Your task to perform on an android device: Open calendar and show me the second week of next month Image 0: 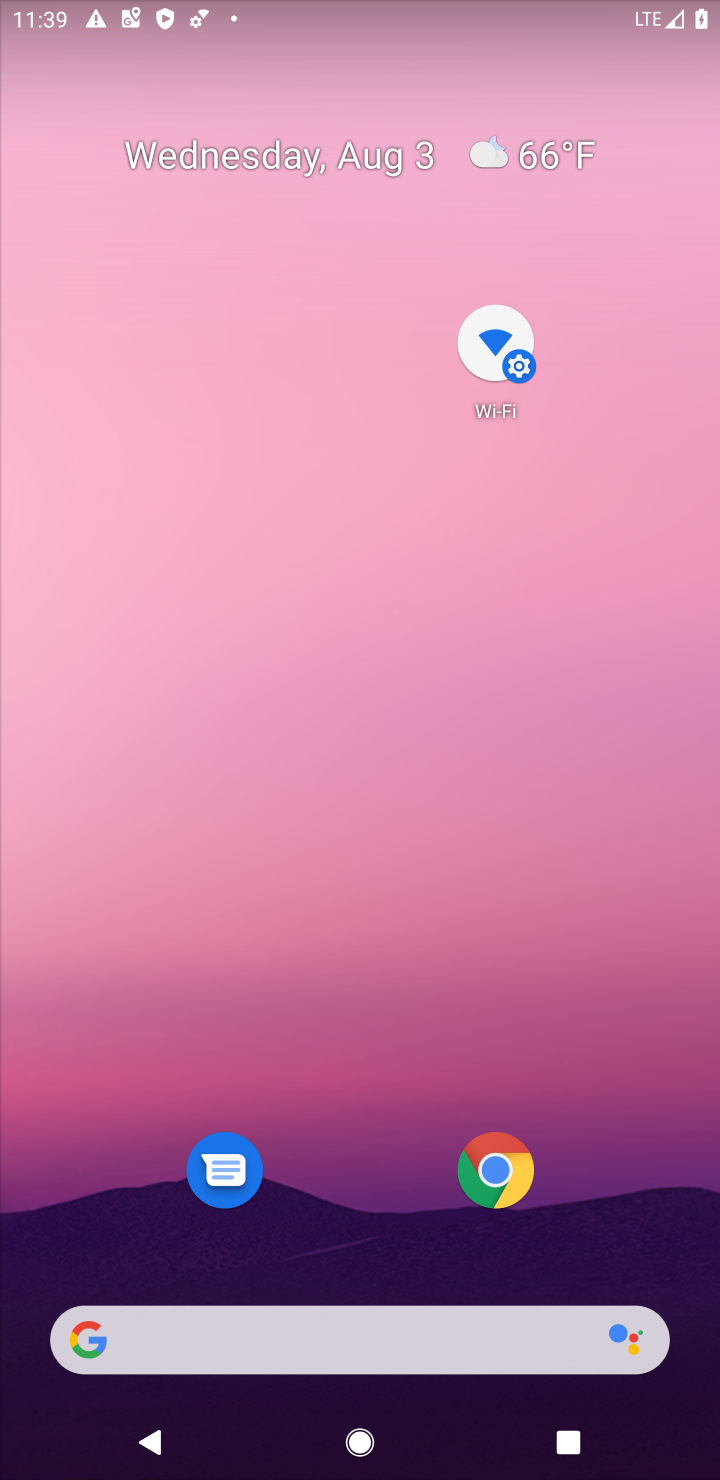
Step 0: click (509, 461)
Your task to perform on an android device: Open calendar and show me the second week of next month Image 1: 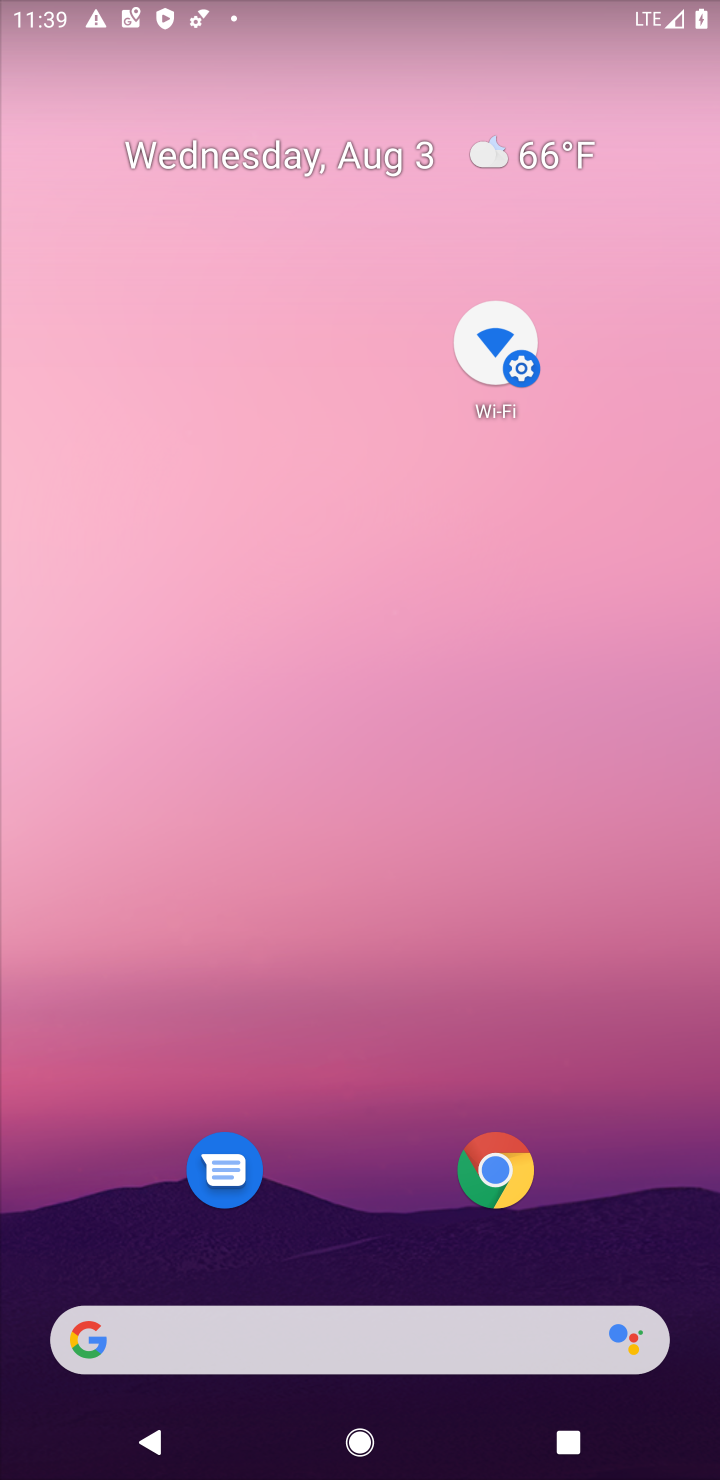
Step 1: drag from (331, 1042) to (301, 409)
Your task to perform on an android device: Open calendar and show me the second week of next month Image 2: 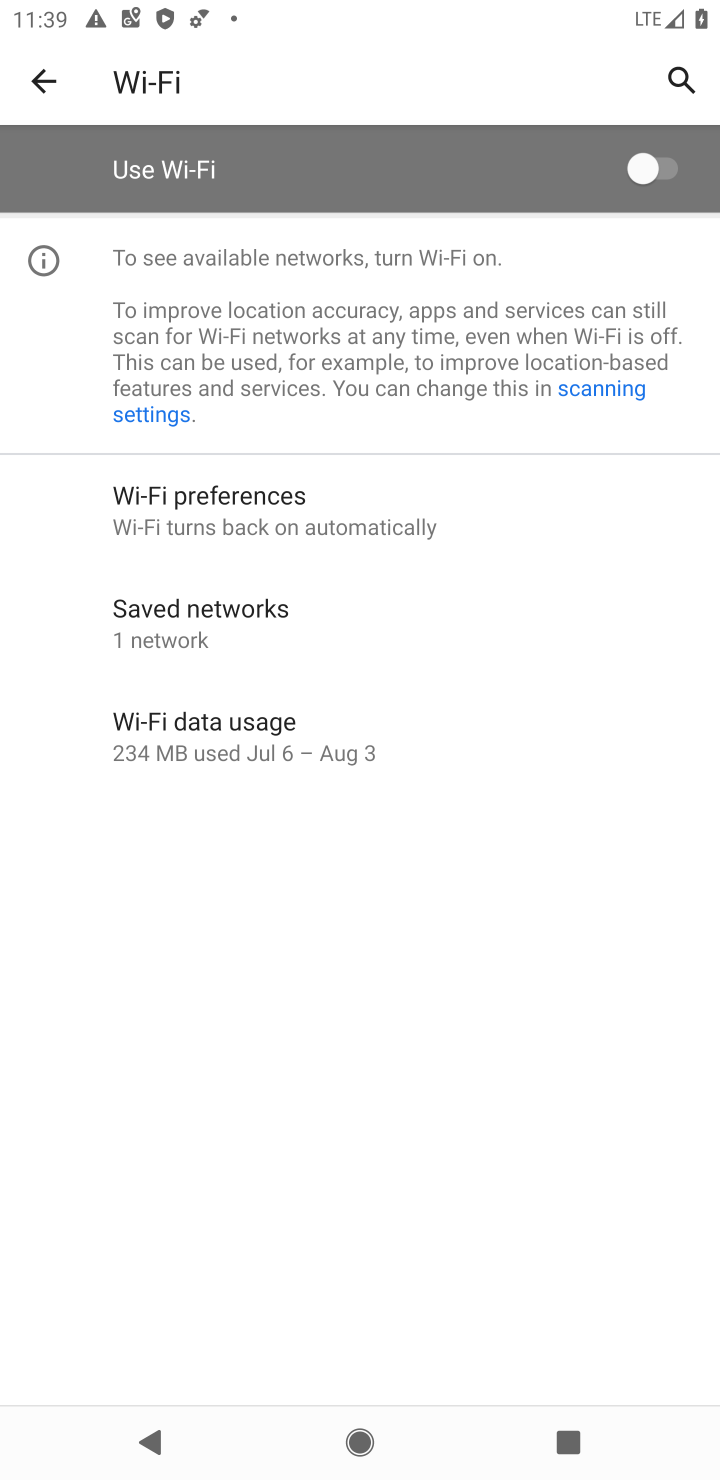
Step 2: press home button
Your task to perform on an android device: Open calendar and show me the second week of next month Image 3: 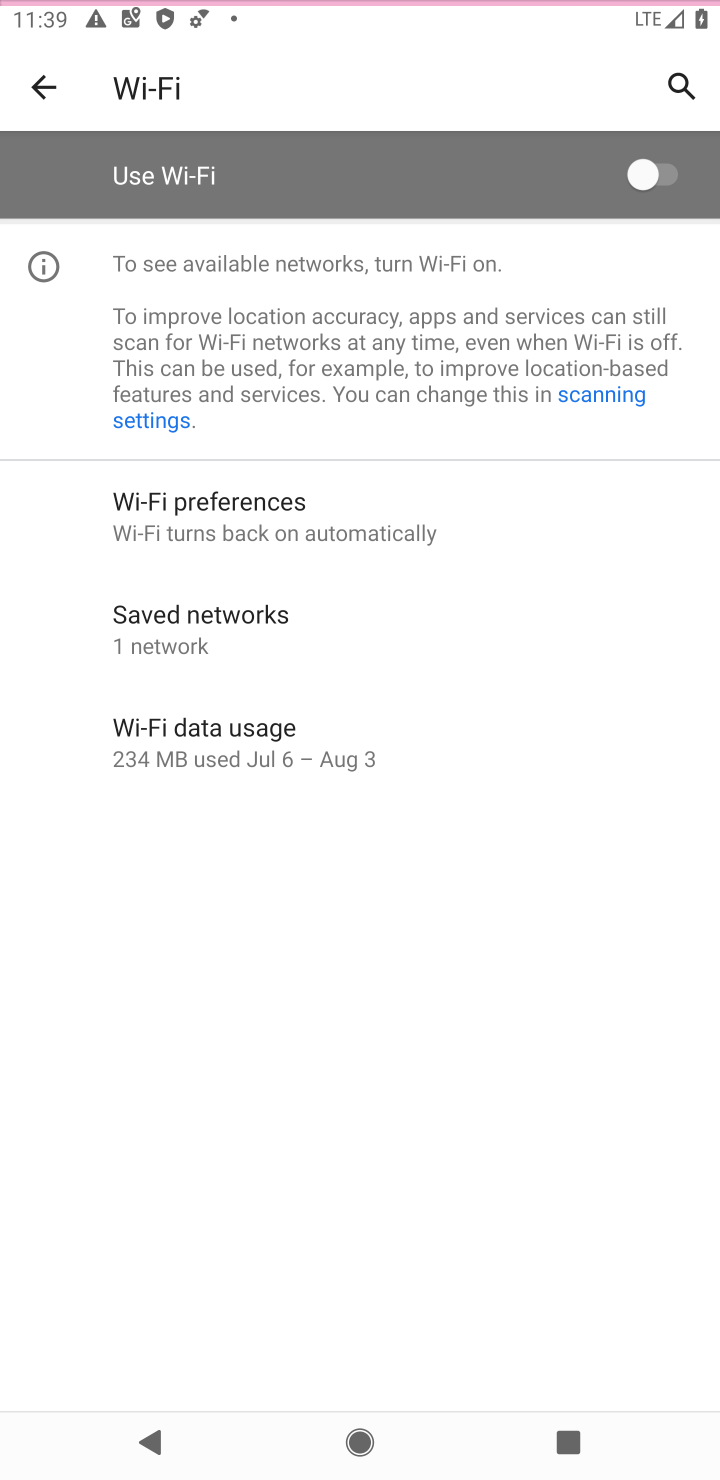
Step 3: drag from (362, 1181) to (439, 216)
Your task to perform on an android device: Open calendar and show me the second week of next month Image 4: 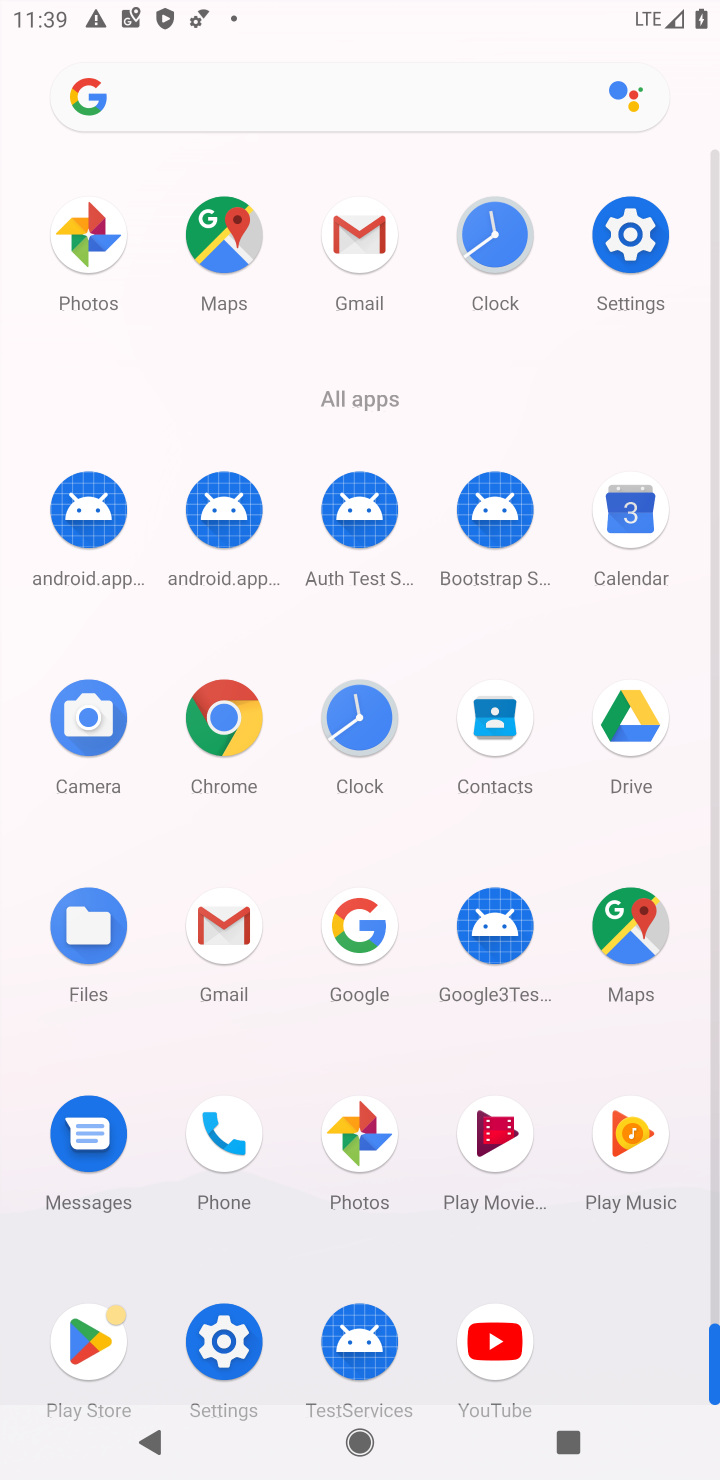
Step 4: click (615, 522)
Your task to perform on an android device: Open calendar and show me the second week of next month Image 5: 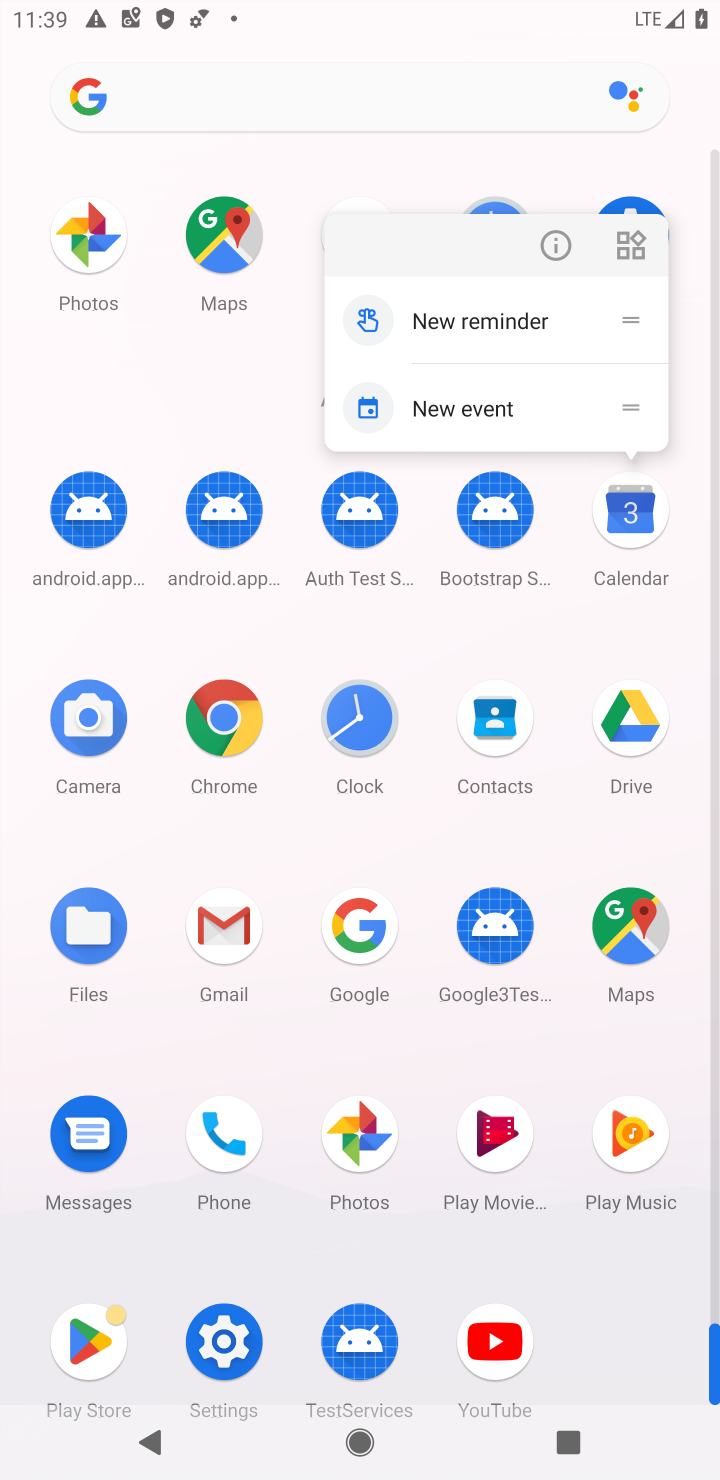
Step 5: click (567, 250)
Your task to perform on an android device: Open calendar and show me the second week of next month Image 6: 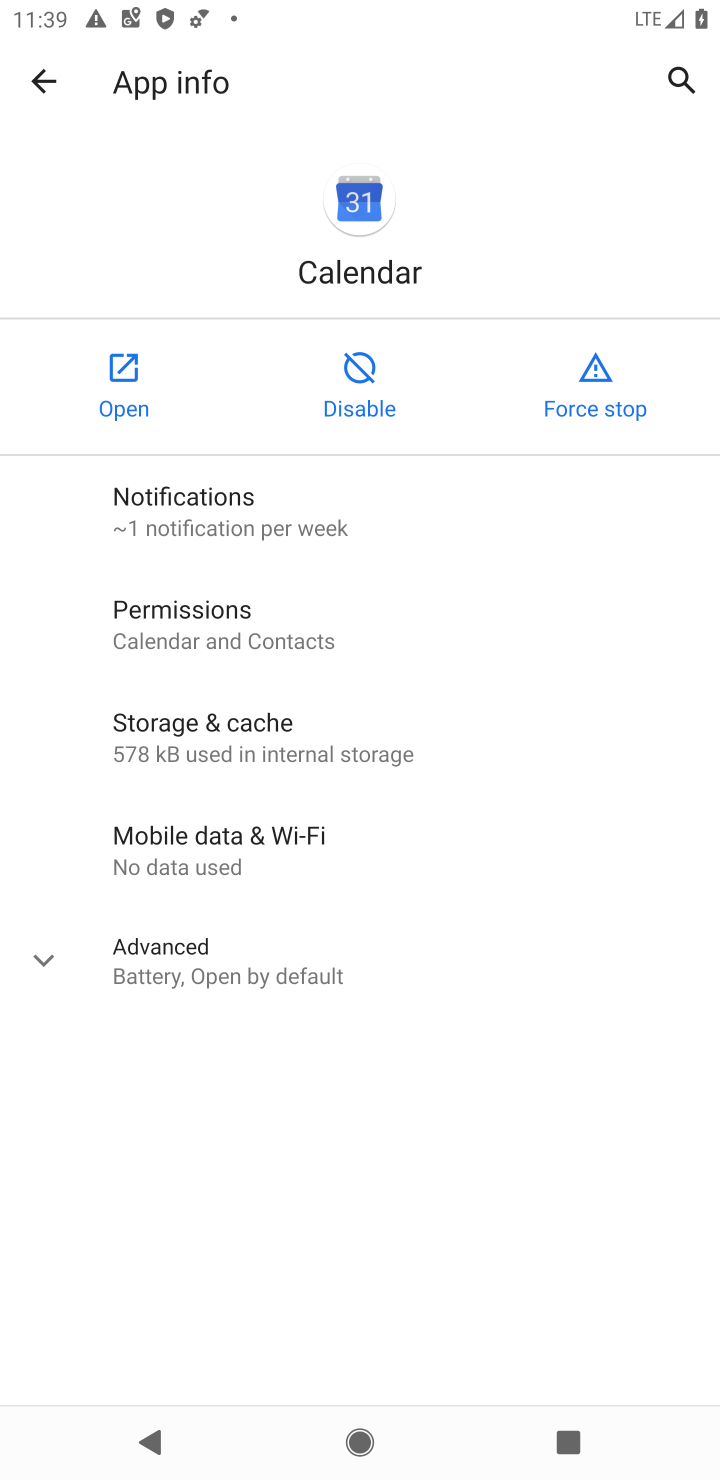
Step 6: click (133, 386)
Your task to perform on an android device: Open calendar and show me the second week of next month Image 7: 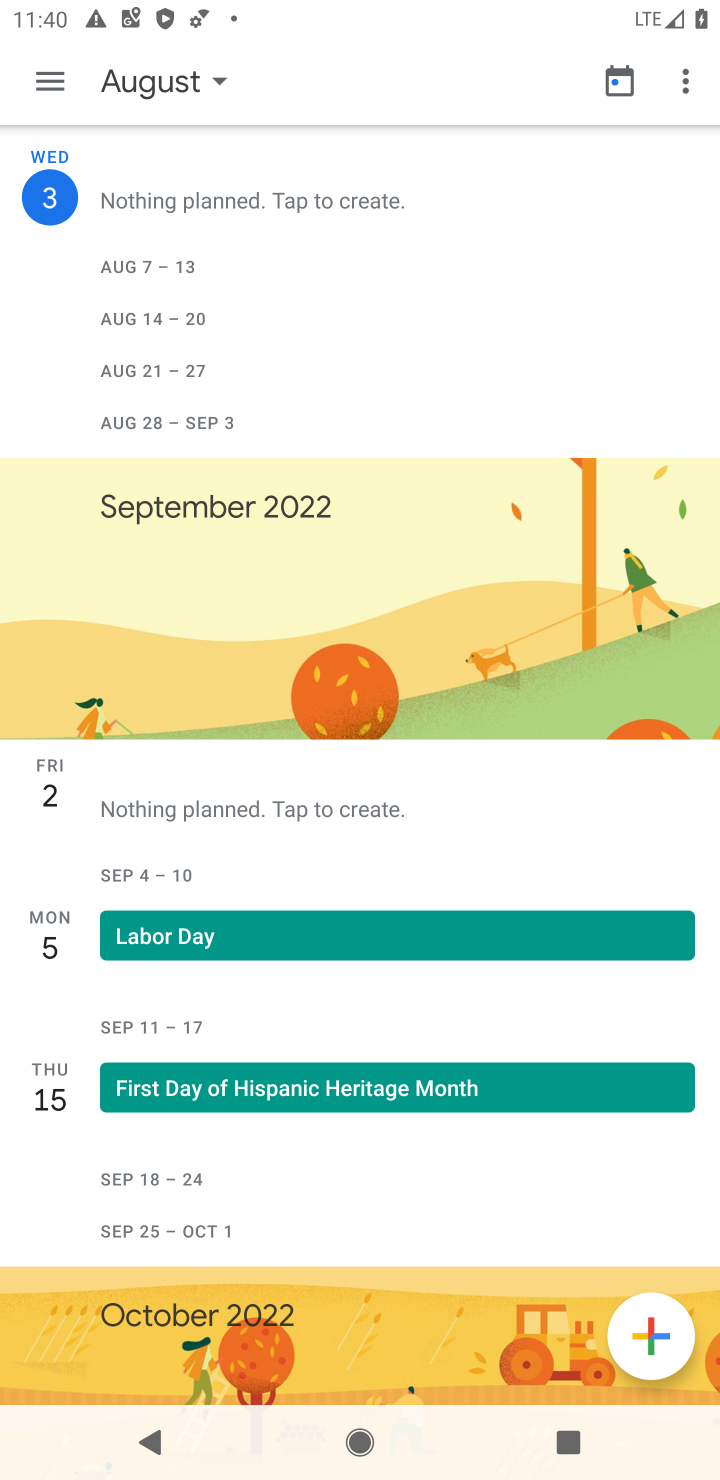
Step 7: click (159, 61)
Your task to perform on an android device: Open calendar and show me the second week of next month Image 8: 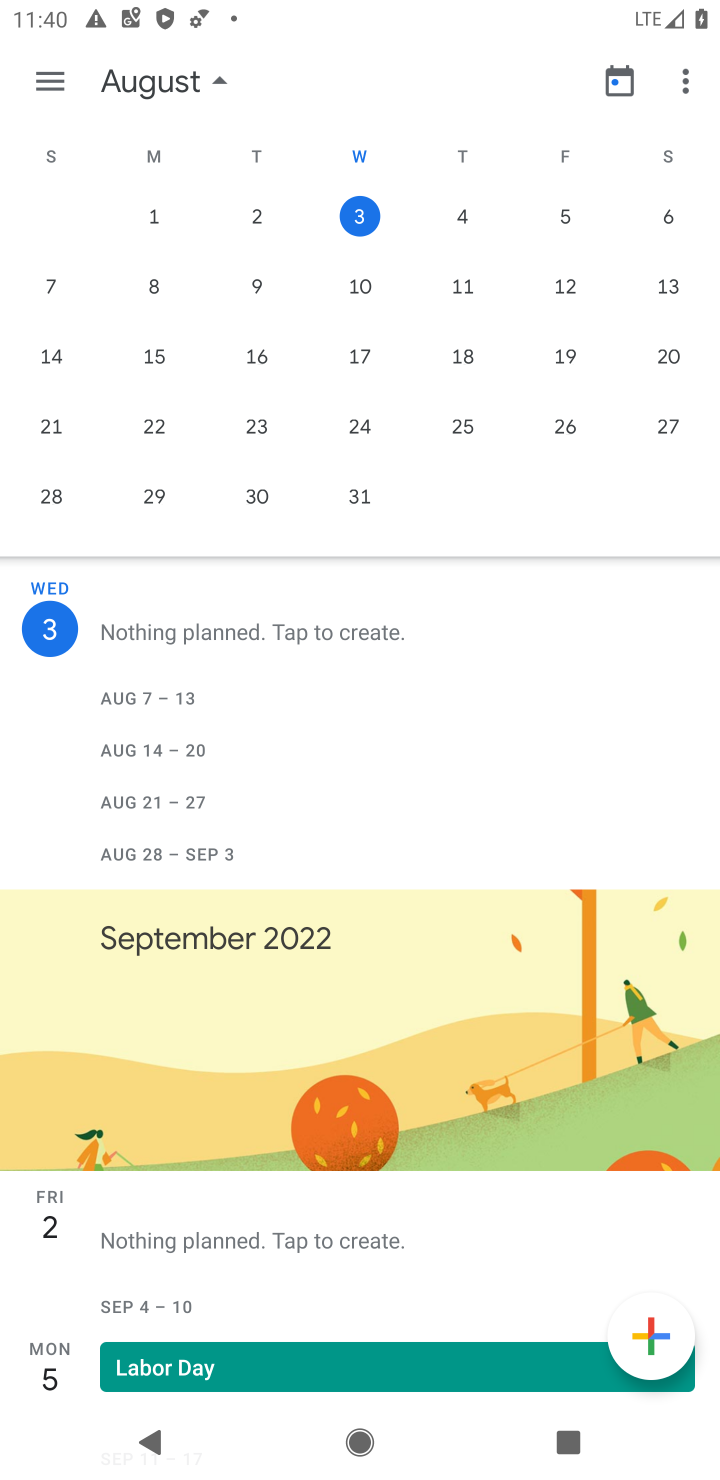
Step 8: drag from (638, 272) to (22, 404)
Your task to perform on an android device: Open calendar and show me the second week of next month Image 9: 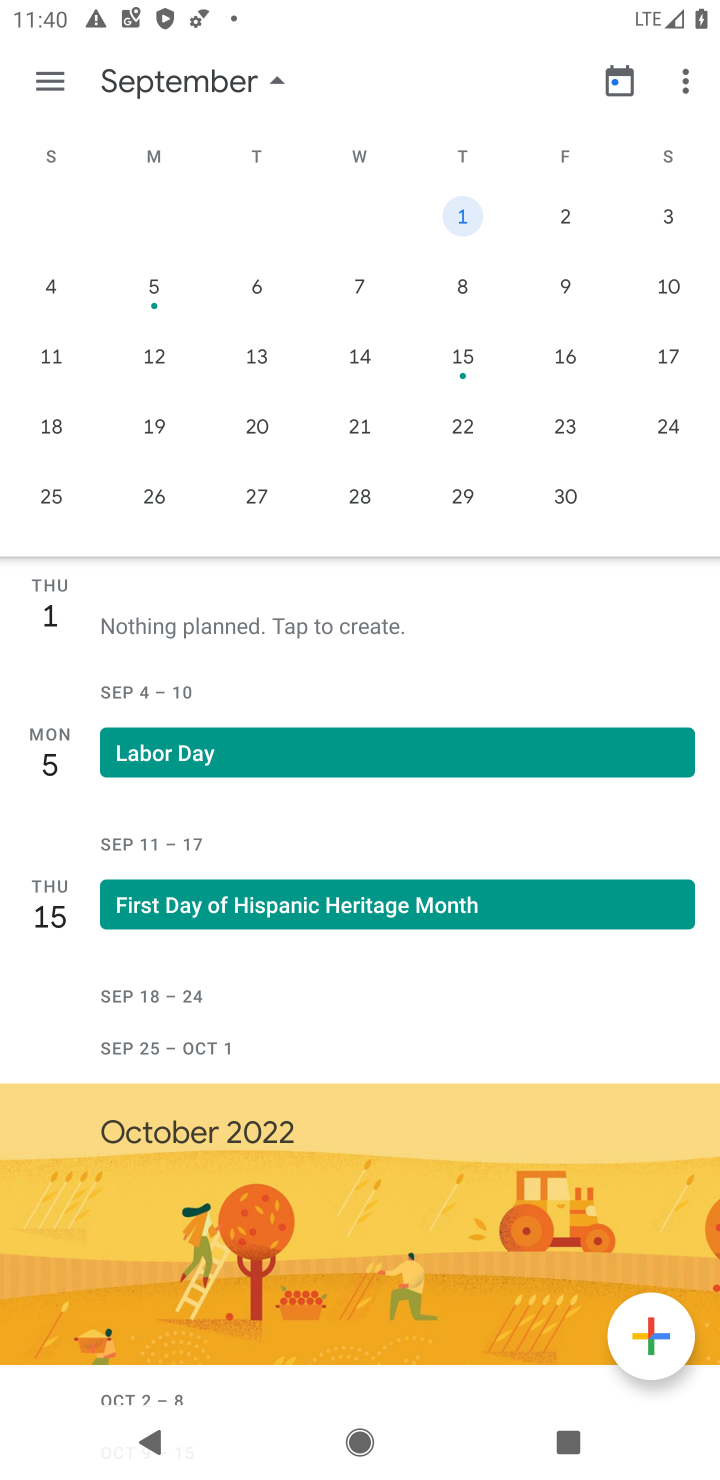
Step 9: click (349, 294)
Your task to perform on an android device: Open calendar and show me the second week of next month Image 10: 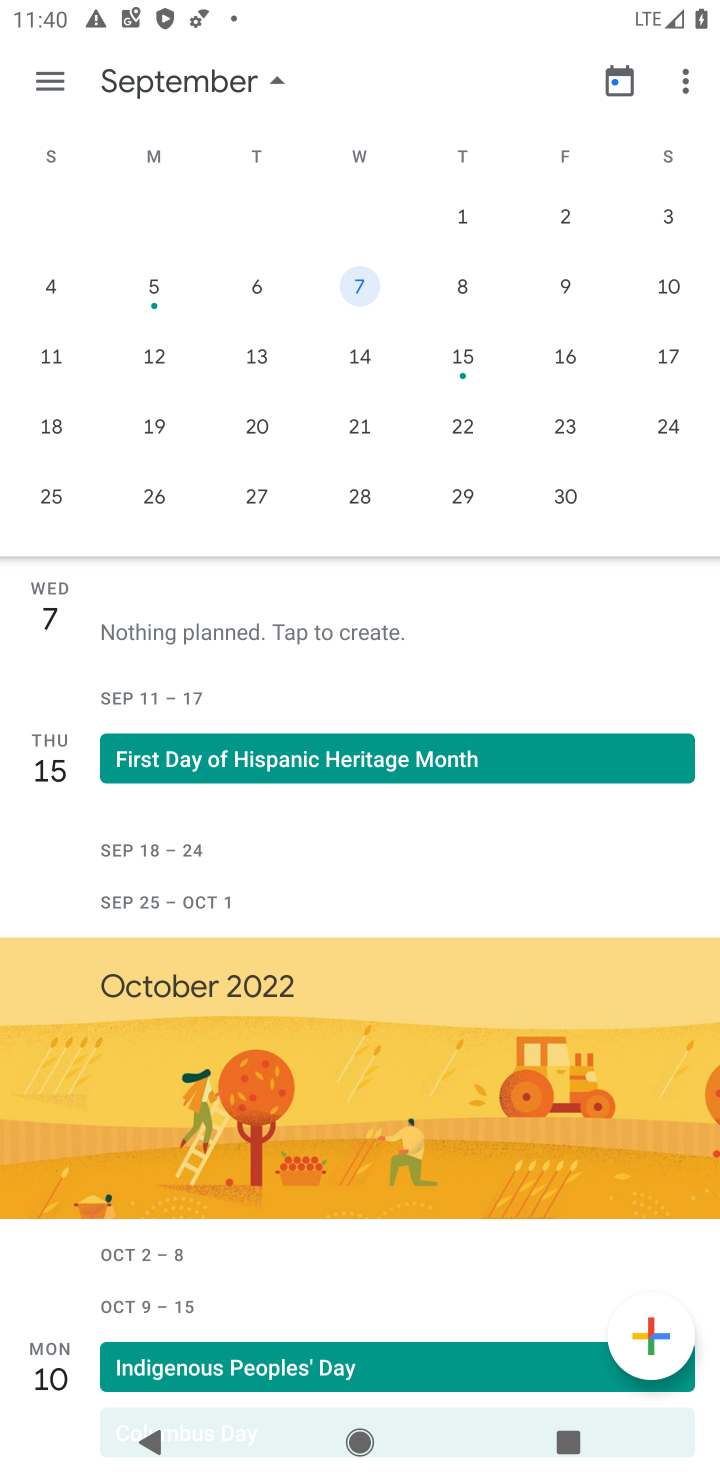
Step 10: task complete